Your task to perform on an android device: Open internet settings Image 0: 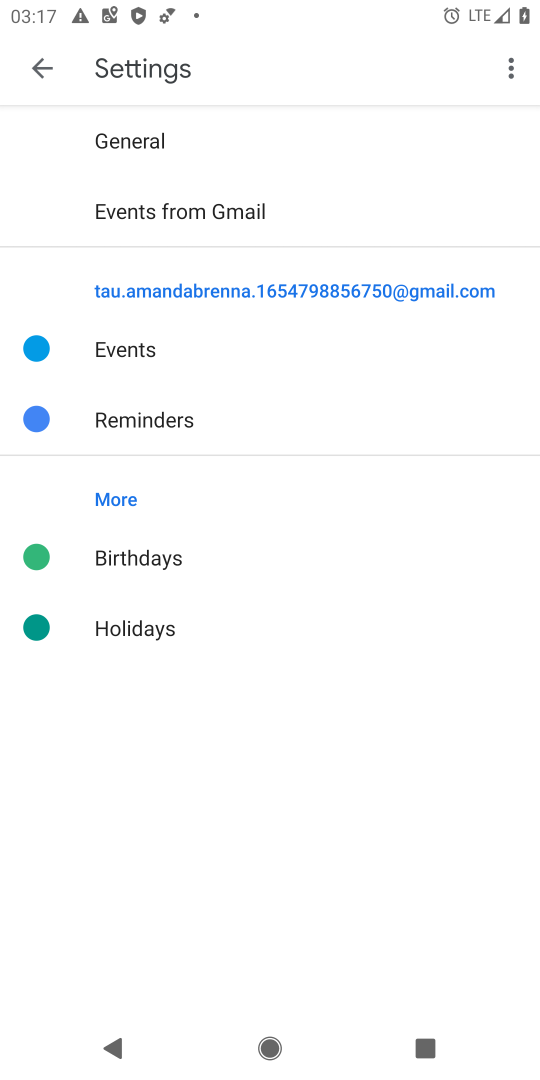
Step 0: press home button
Your task to perform on an android device: Open internet settings Image 1: 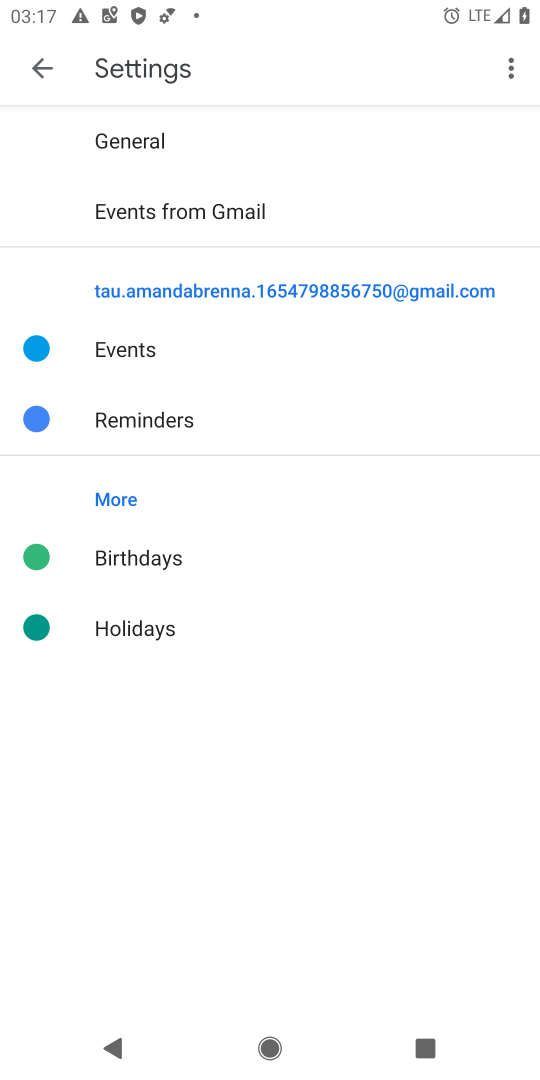
Step 1: press home button
Your task to perform on an android device: Open internet settings Image 2: 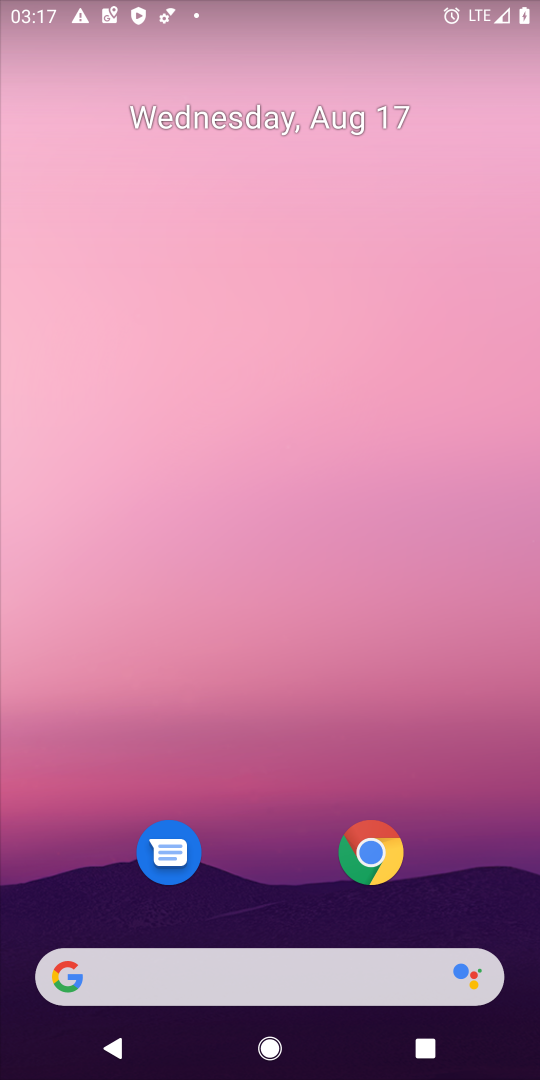
Step 2: drag from (264, 791) to (422, 194)
Your task to perform on an android device: Open internet settings Image 3: 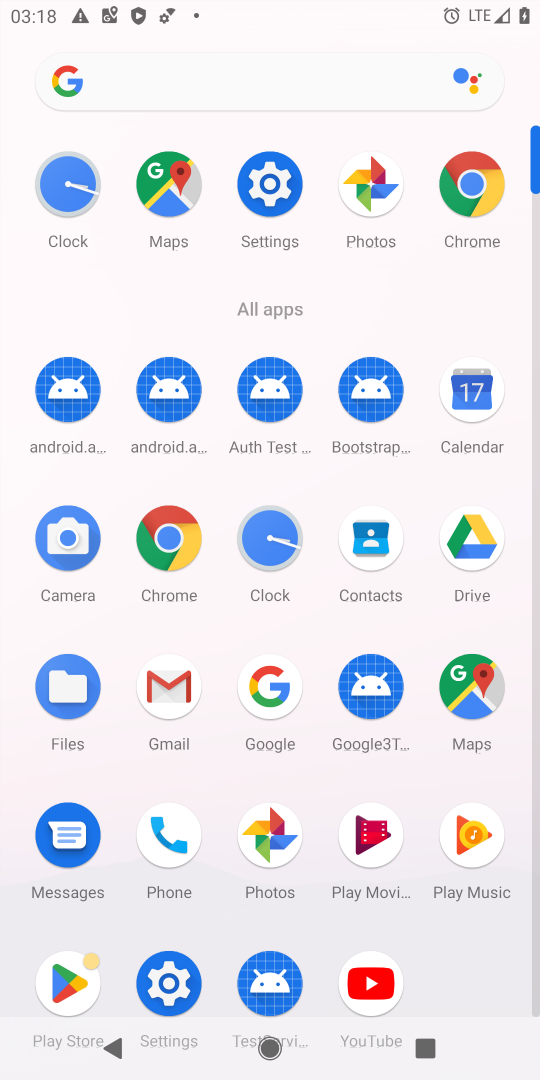
Step 3: click (170, 988)
Your task to perform on an android device: Open internet settings Image 4: 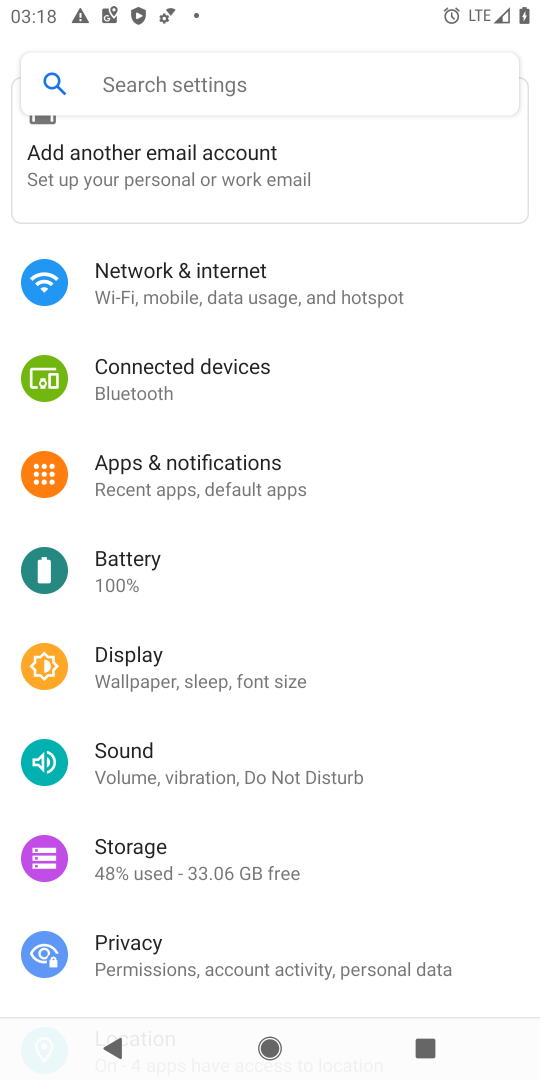
Step 4: click (206, 245)
Your task to perform on an android device: Open internet settings Image 5: 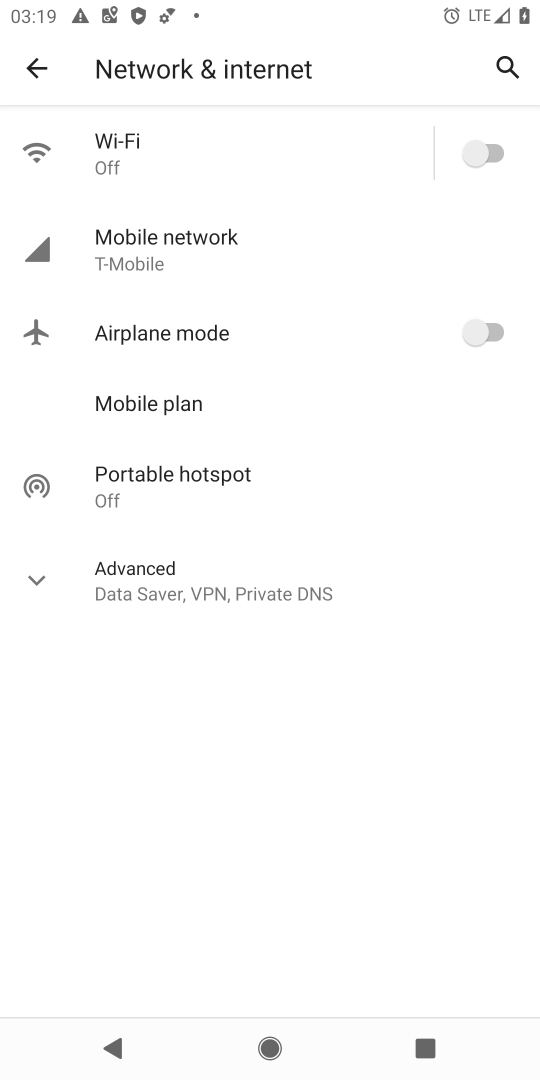
Step 5: click (147, 572)
Your task to perform on an android device: Open internet settings Image 6: 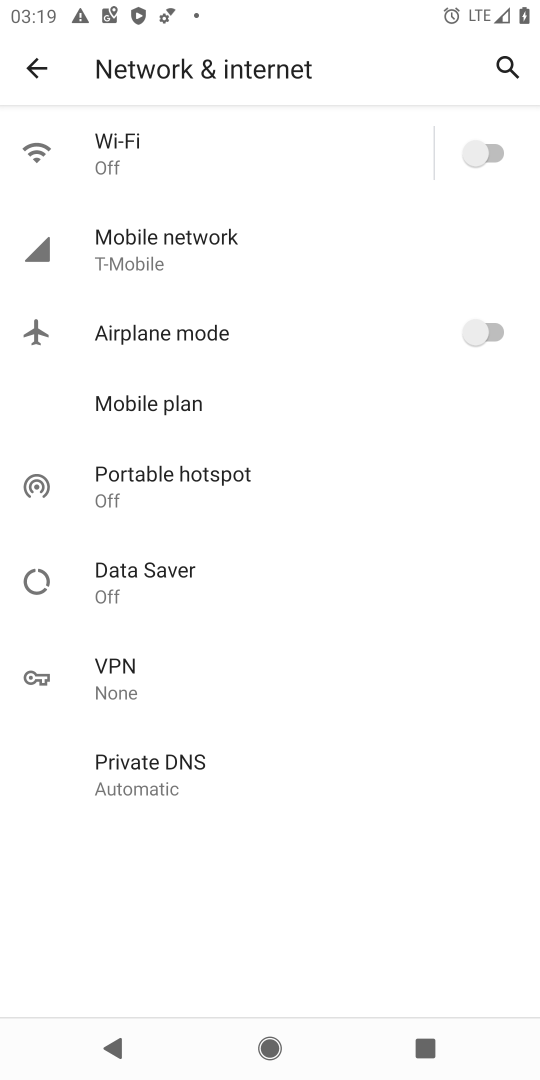
Step 6: task complete